Your task to perform on an android device: open a bookmark in the chrome app Image 0: 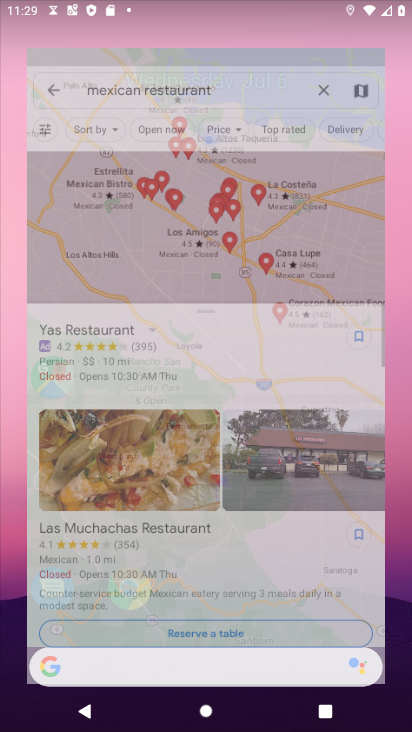
Step 0: drag from (224, 596) to (224, 133)
Your task to perform on an android device: open a bookmark in the chrome app Image 1: 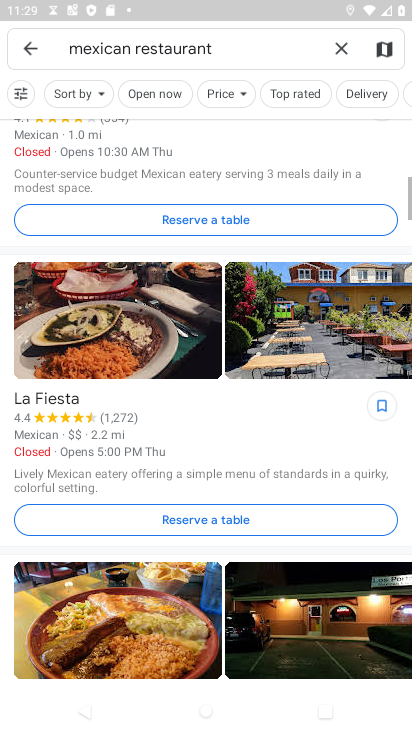
Step 1: press home button
Your task to perform on an android device: open a bookmark in the chrome app Image 2: 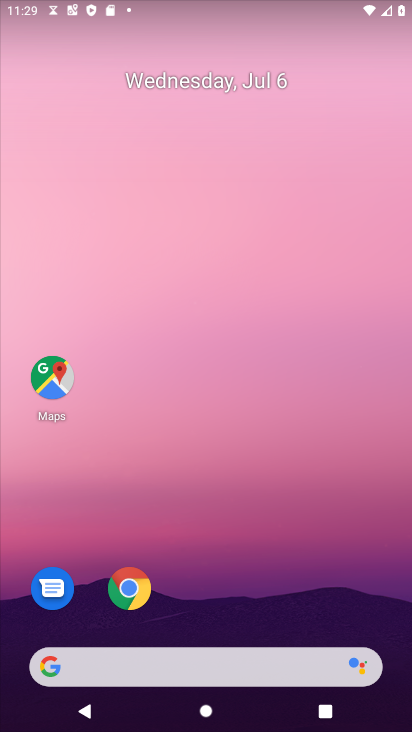
Step 2: drag from (264, 628) to (244, 151)
Your task to perform on an android device: open a bookmark in the chrome app Image 3: 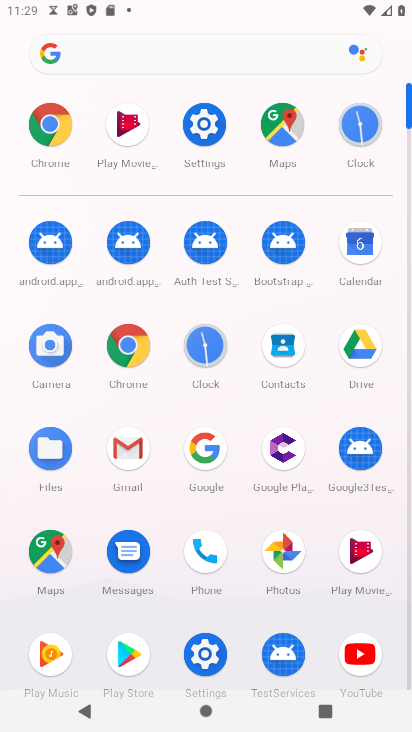
Step 3: click (46, 125)
Your task to perform on an android device: open a bookmark in the chrome app Image 4: 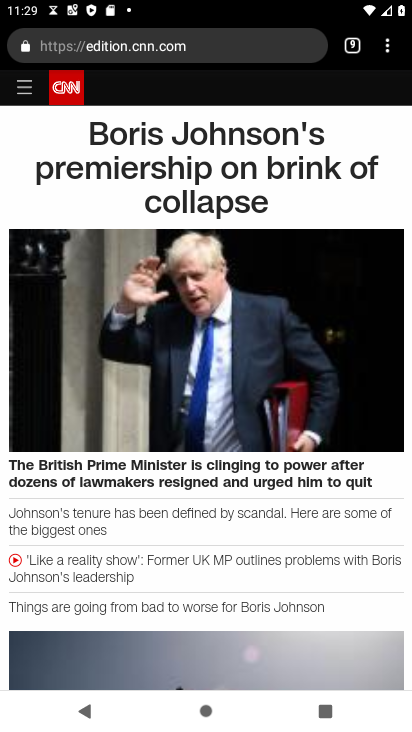
Step 4: click (391, 52)
Your task to perform on an android device: open a bookmark in the chrome app Image 5: 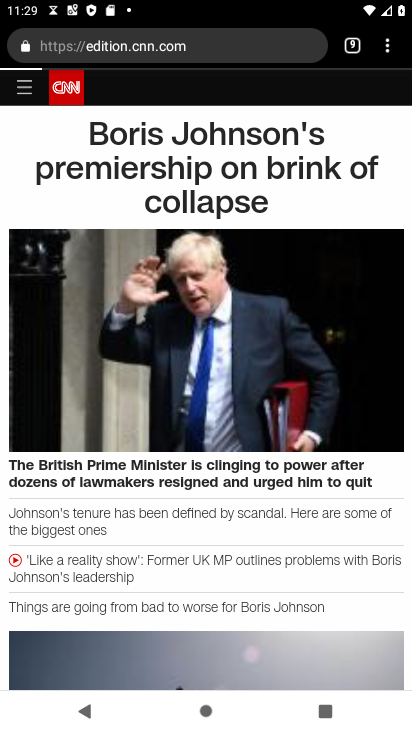
Step 5: click (391, 52)
Your task to perform on an android device: open a bookmark in the chrome app Image 6: 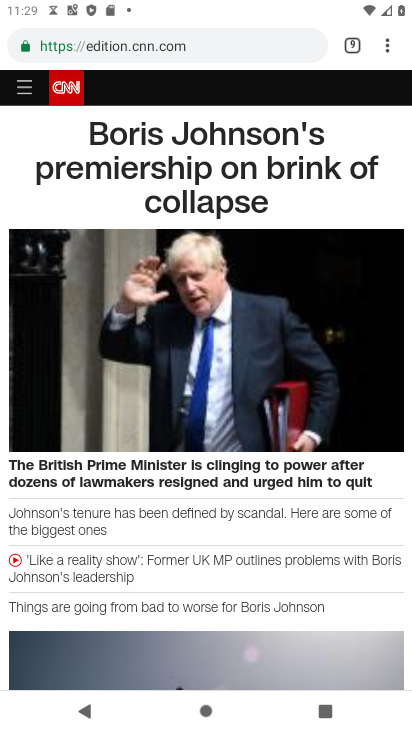
Step 6: click (391, 44)
Your task to perform on an android device: open a bookmark in the chrome app Image 7: 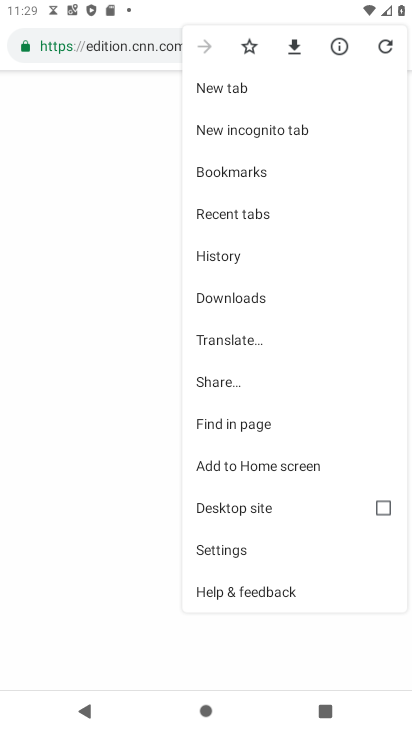
Step 7: click (249, 169)
Your task to perform on an android device: open a bookmark in the chrome app Image 8: 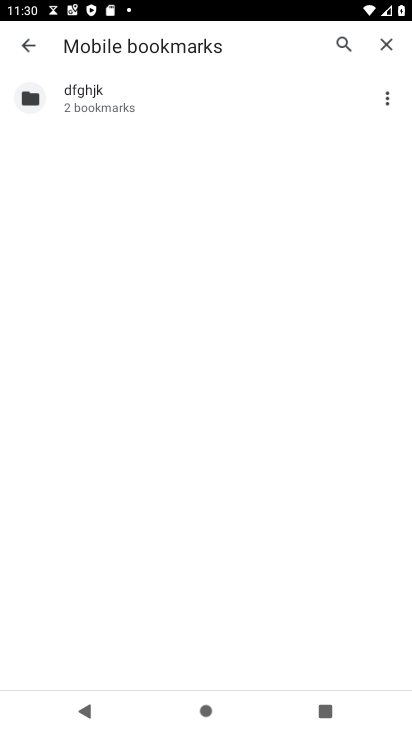
Step 8: click (108, 105)
Your task to perform on an android device: open a bookmark in the chrome app Image 9: 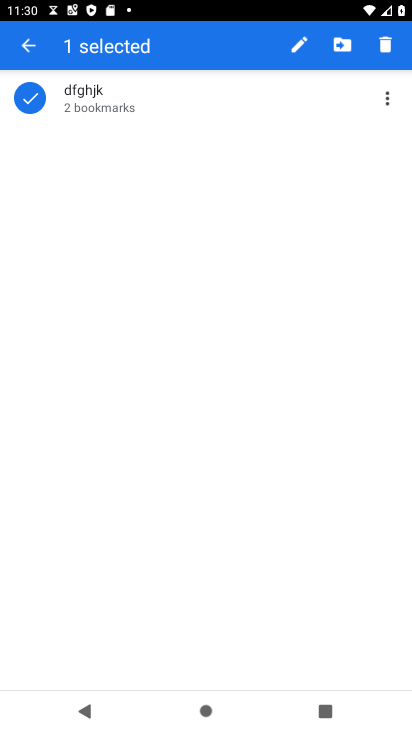
Step 9: click (66, 95)
Your task to perform on an android device: open a bookmark in the chrome app Image 10: 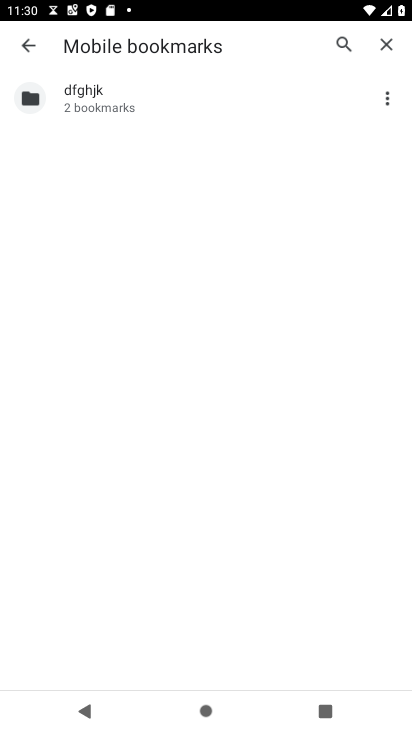
Step 10: click (101, 110)
Your task to perform on an android device: open a bookmark in the chrome app Image 11: 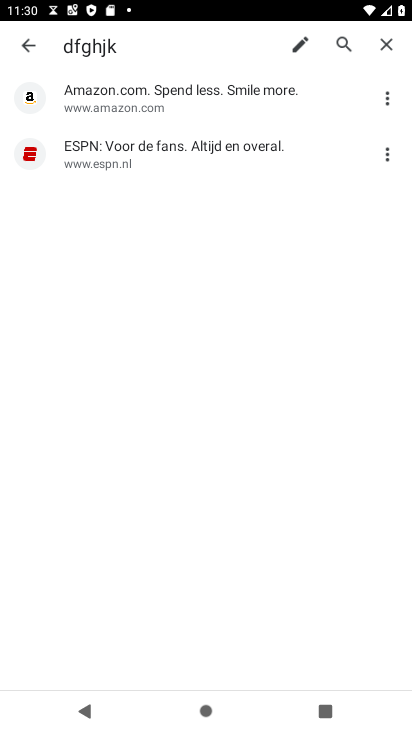
Step 11: task complete